Your task to perform on an android device: change the clock display to digital Image 0: 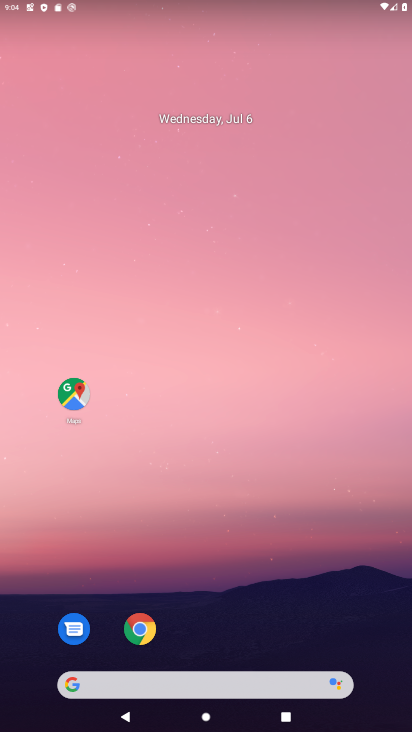
Step 0: drag from (186, 668) to (246, 102)
Your task to perform on an android device: change the clock display to digital Image 1: 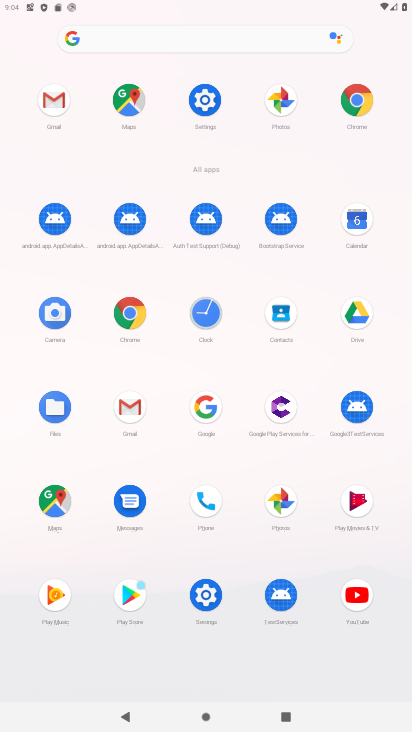
Step 1: click (206, 316)
Your task to perform on an android device: change the clock display to digital Image 2: 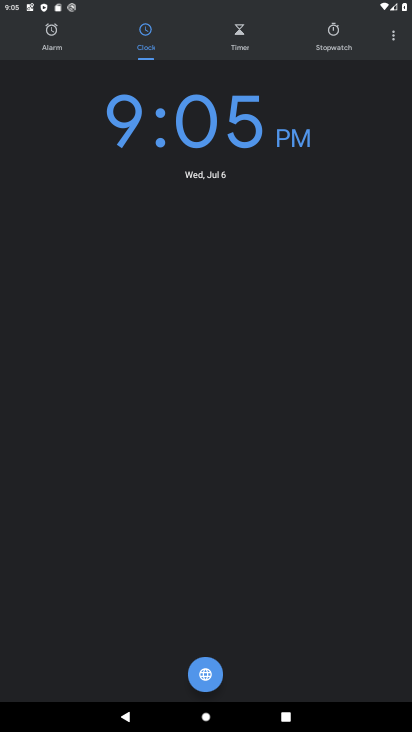
Step 2: click (379, 38)
Your task to perform on an android device: change the clock display to digital Image 3: 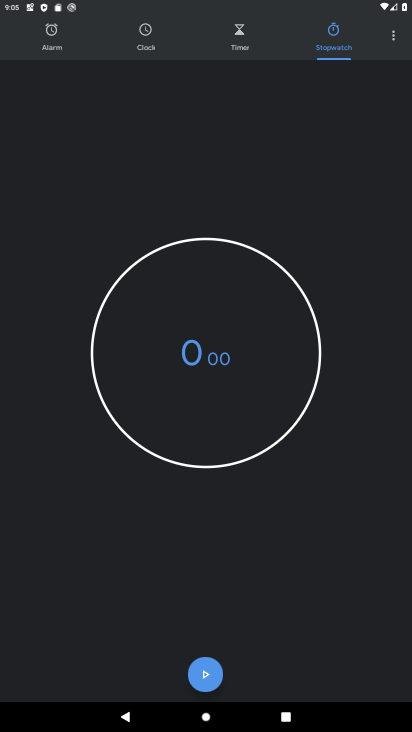
Step 3: click (388, 34)
Your task to perform on an android device: change the clock display to digital Image 4: 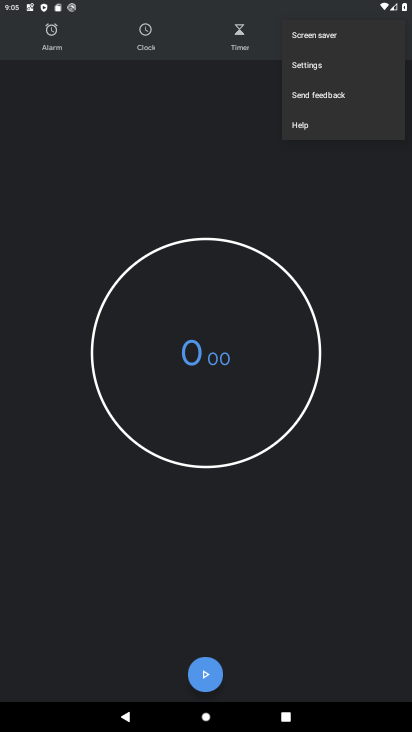
Step 4: click (301, 62)
Your task to perform on an android device: change the clock display to digital Image 5: 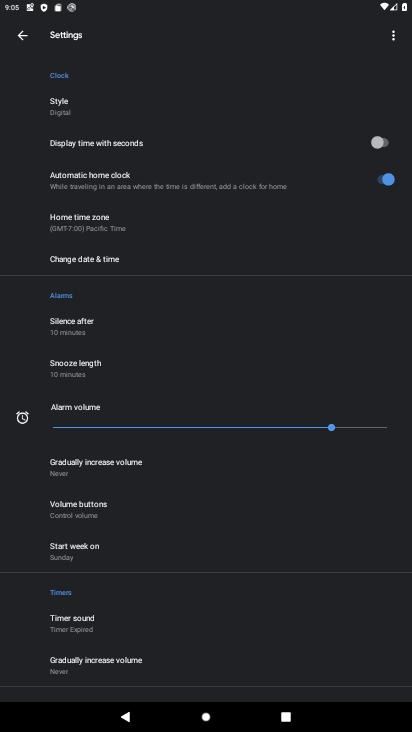
Step 5: click (110, 114)
Your task to perform on an android device: change the clock display to digital Image 6: 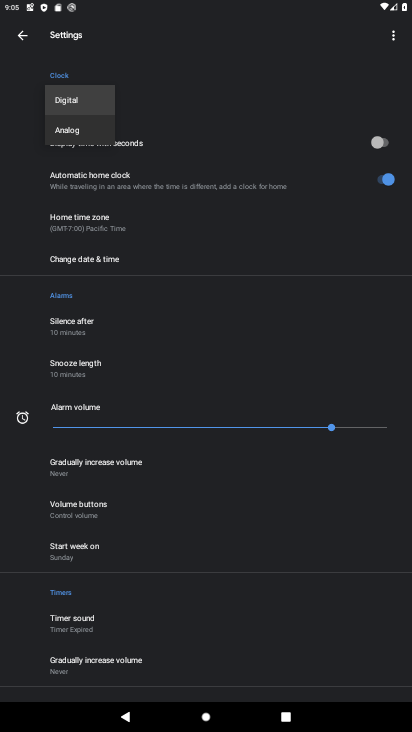
Step 6: task complete